Your task to perform on an android device: toggle data saver in the chrome app Image 0: 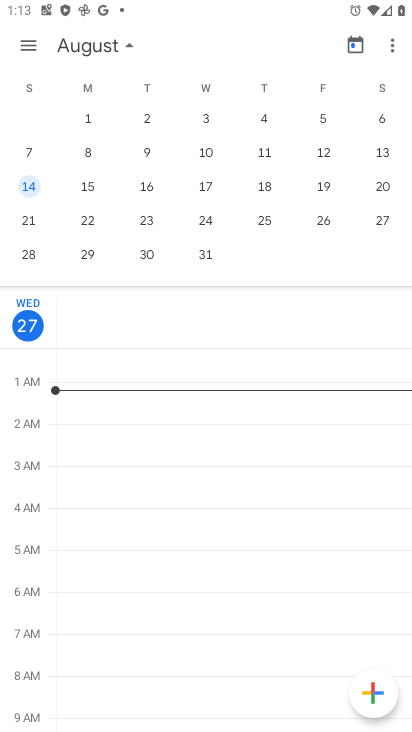
Step 0: press home button
Your task to perform on an android device: toggle data saver in the chrome app Image 1: 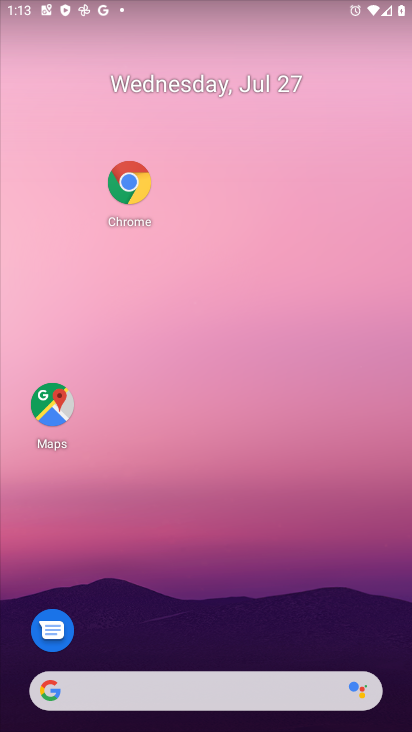
Step 1: click (148, 186)
Your task to perform on an android device: toggle data saver in the chrome app Image 2: 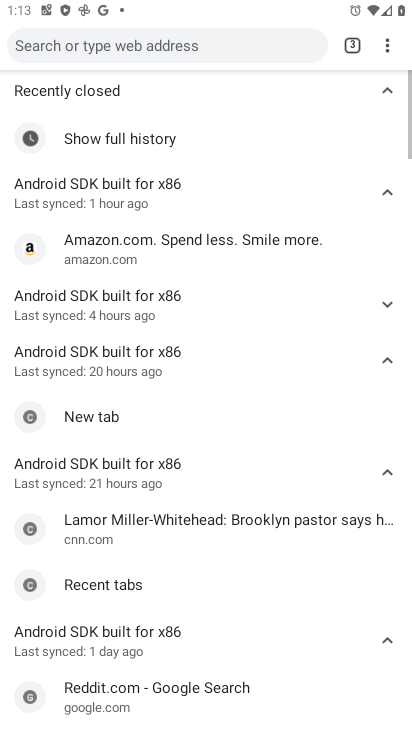
Step 2: click (390, 48)
Your task to perform on an android device: toggle data saver in the chrome app Image 3: 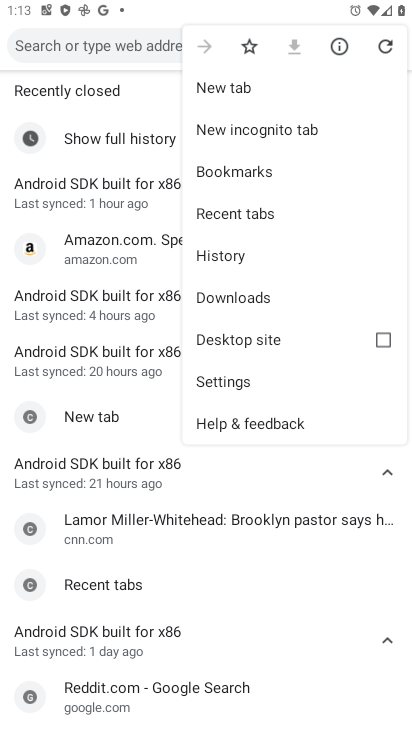
Step 3: click (264, 381)
Your task to perform on an android device: toggle data saver in the chrome app Image 4: 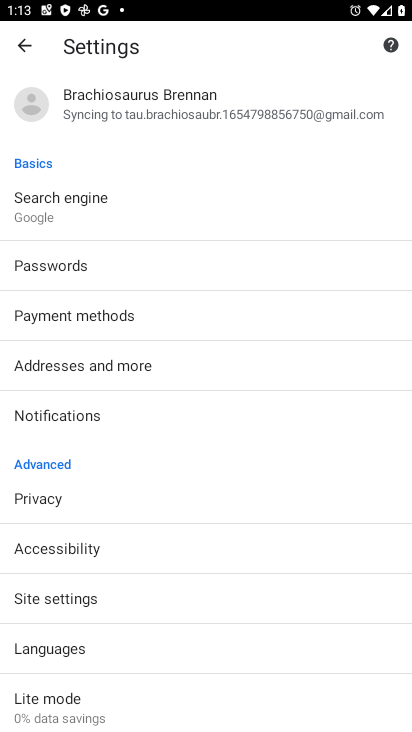
Step 4: click (133, 703)
Your task to perform on an android device: toggle data saver in the chrome app Image 5: 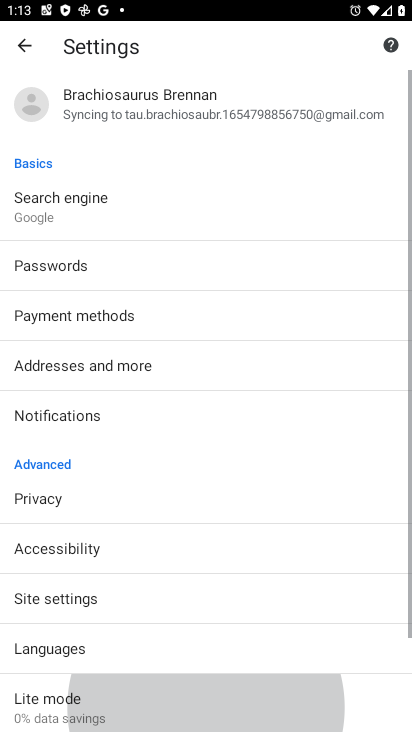
Step 5: click (132, 716)
Your task to perform on an android device: toggle data saver in the chrome app Image 6: 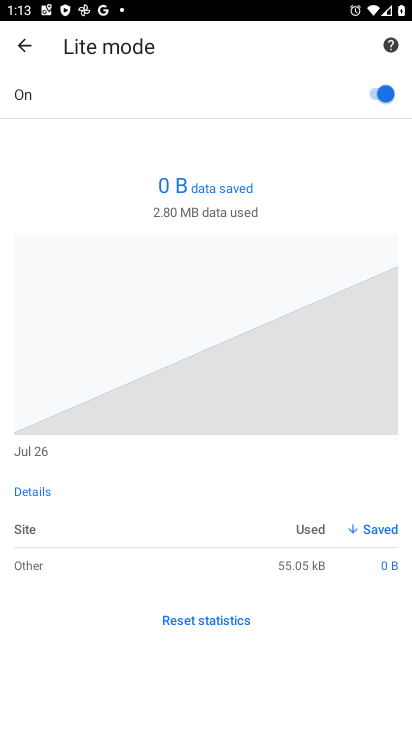
Step 6: click (382, 92)
Your task to perform on an android device: toggle data saver in the chrome app Image 7: 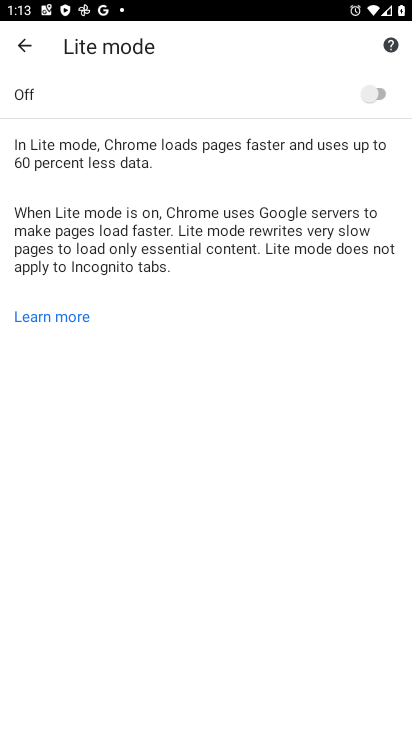
Step 7: task complete